Your task to perform on an android device: open chrome privacy settings Image 0: 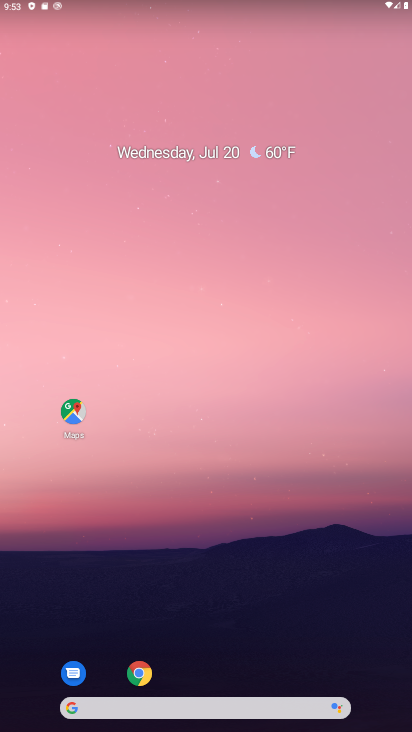
Step 0: click (145, 668)
Your task to perform on an android device: open chrome privacy settings Image 1: 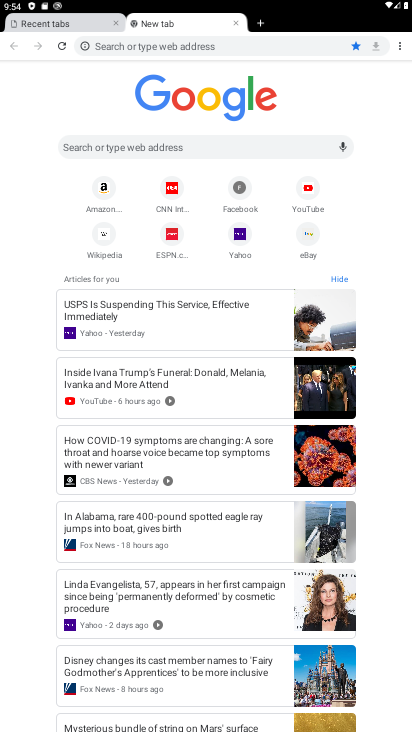
Step 1: click (400, 44)
Your task to perform on an android device: open chrome privacy settings Image 2: 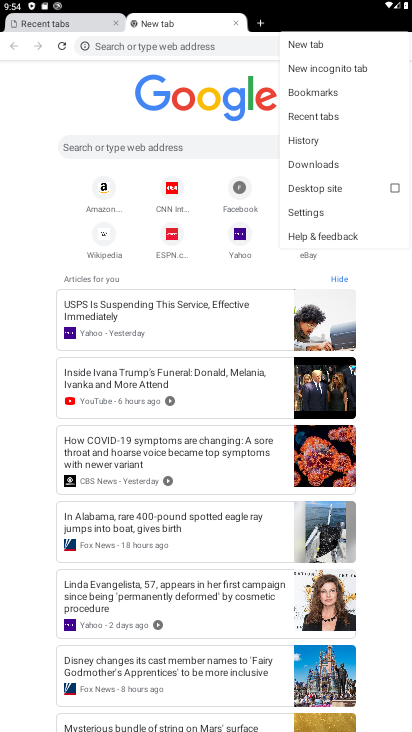
Step 2: click (301, 210)
Your task to perform on an android device: open chrome privacy settings Image 3: 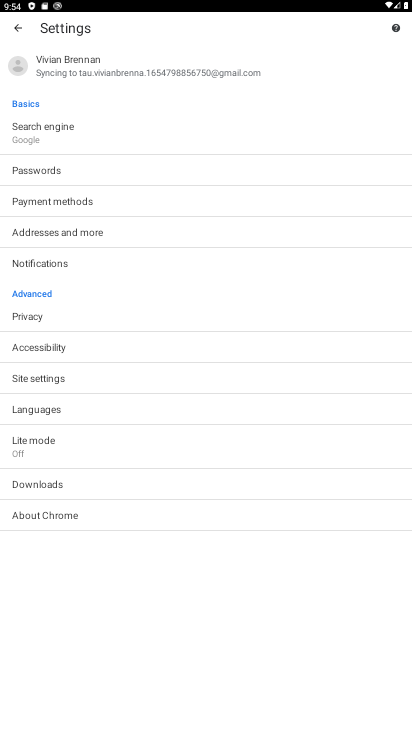
Step 3: click (62, 315)
Your task to perform on an android device: open chrome privacy settings Image 4: 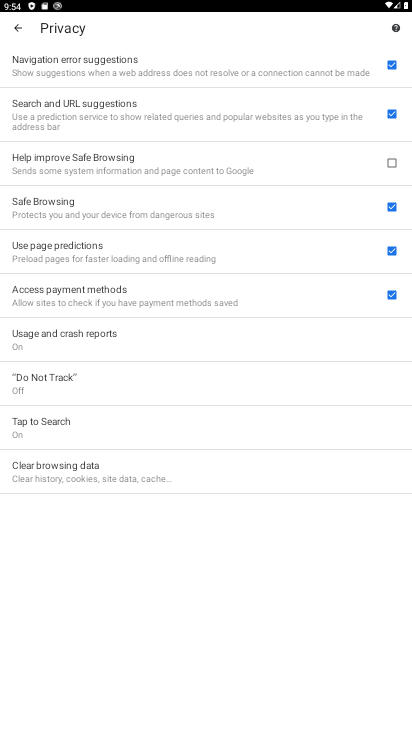
Step 4: task complete